Your task to perform on an android device: Go to network settings Image 0: 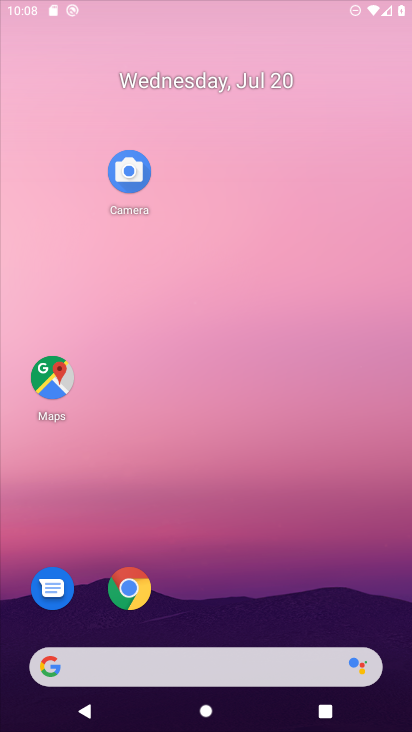
Step 0: press home button
Your task to perform on an android device: Go to network settings Image 1: 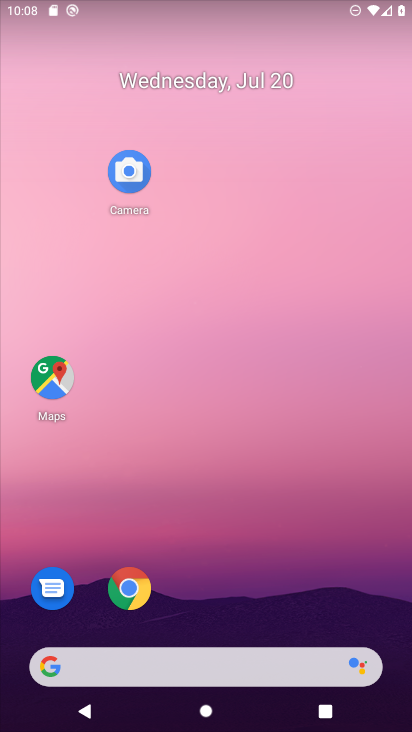
Step 1: drag from (259, 625) to (286, 116)
Your task to perform on an android device: Go to network settings Image 2: 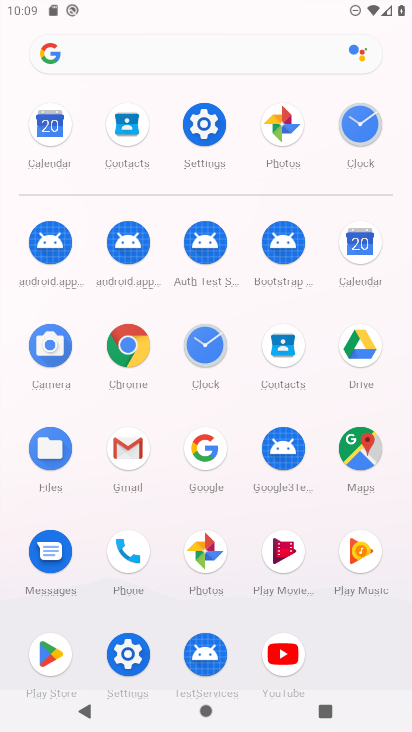
Step 2: click (219, 135)
Your task to perform on an android device: Go to network settings Image 3: 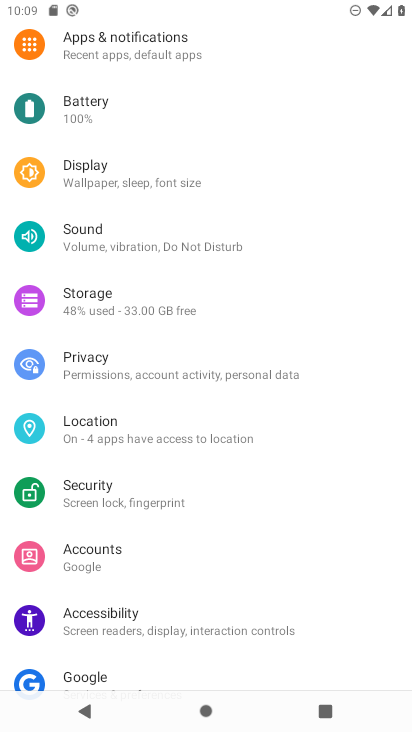
Step 3: drag from (244, 148) to (7, 344)
Your task to perform on an android device: Go to network settings Image 4: 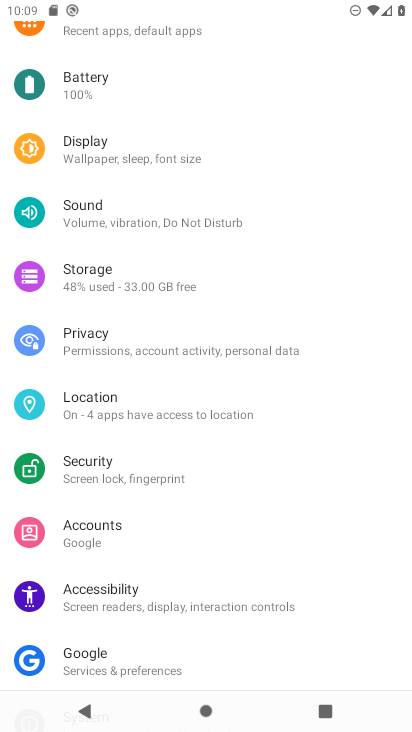
Step 4: drag from (226, 112) to (202, 381)
Your task to perform on an android device: Go to network settings Image 5: 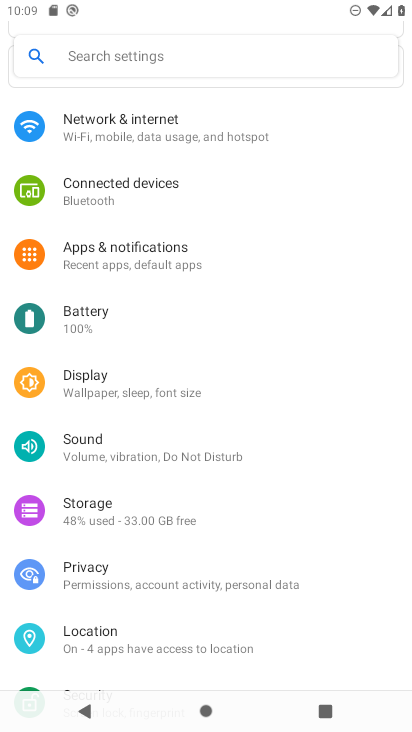
Step 5: click (111, 126)
Your task to perform on an android device: Go to network settings Image 6: 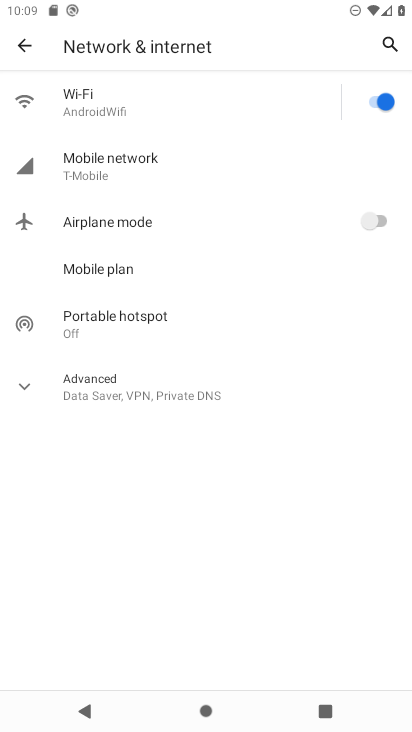
Step 6: task complete